Your task to perform on an android device: Go to Wikipedia Image 0: 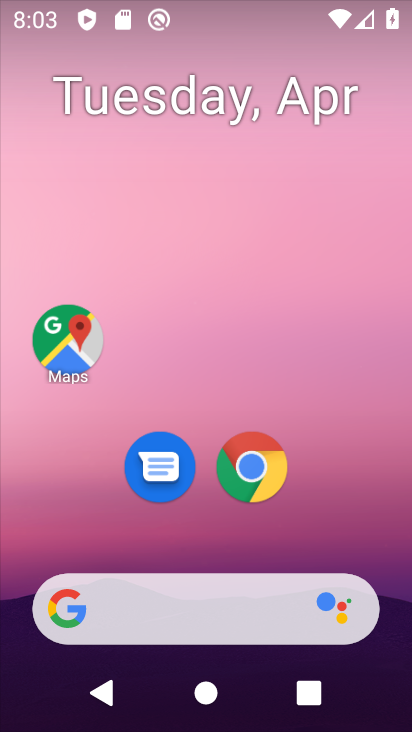
Step 0: drag from (376, 509) to (282, 1)
Your task to perform on an android device: Go to Wikipedia Image 1: 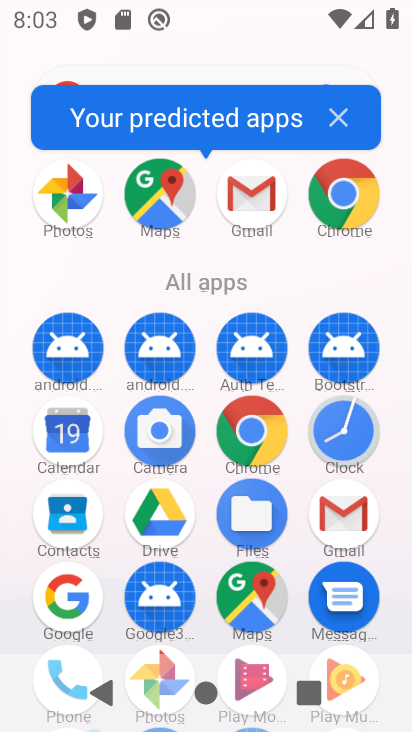
Step 1: drag from (410, 533) to (408, 458)
Your task to perform on an android device: Go to Wikipedia Image 2: 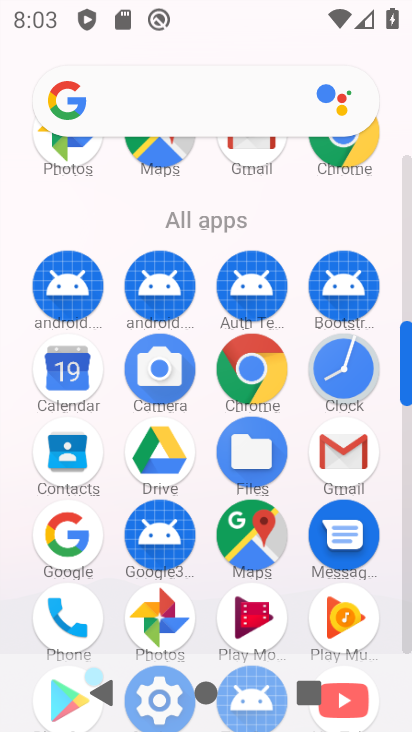
Step 2: click (250, 367)
Your task to perform on an android device: Go to Wikipedia Image 3: 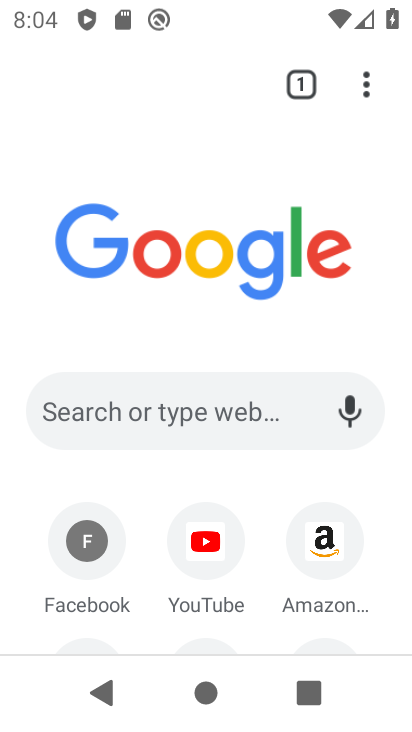
Step 3: drag from (396, 602) to (407, 443)
Your task to perform on an android device: Go to Wikipedia Image 4: 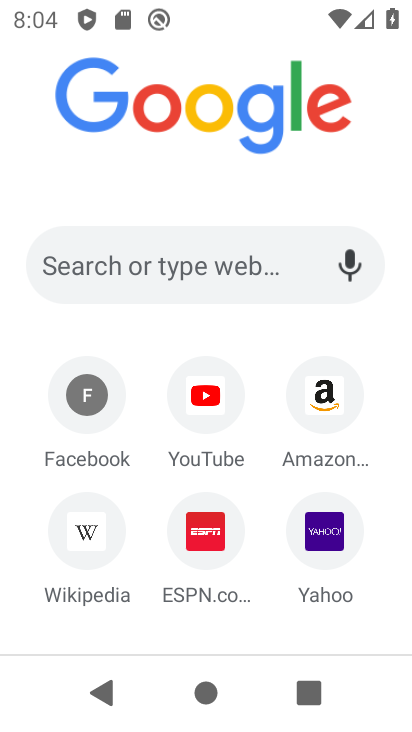
Step 4: click (70, 539)
Your task to perform on an android device: Go to Wikipedia Image 5: 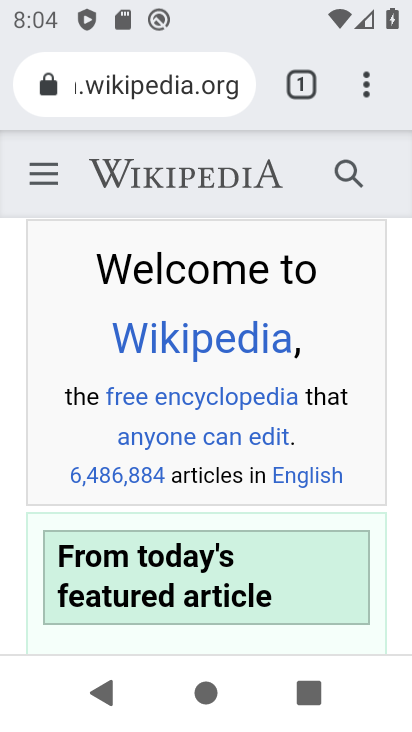
Step 5: task complete